Your task to perform on an android device: turn on notifications settings in the gmail app Image 0: 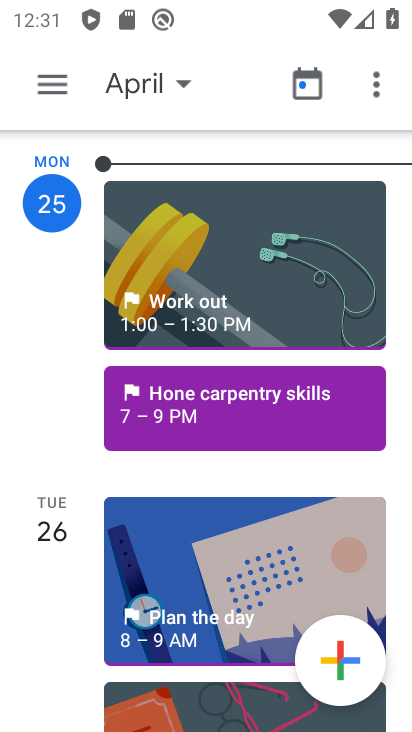
Step 0: press home button
Your task to perform on an android device: turn on notifications settings in the gmail app Image 1: 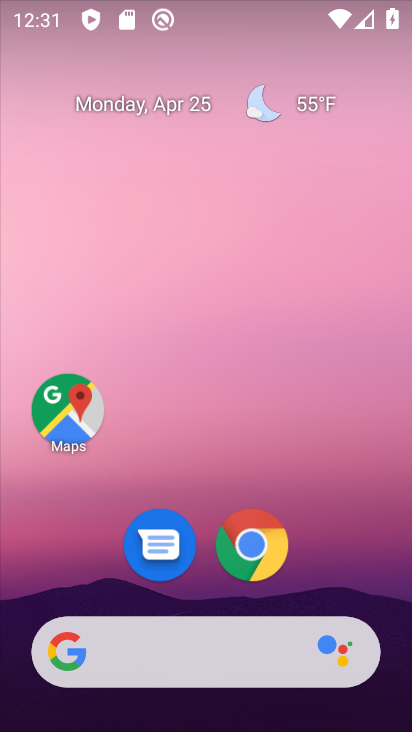
Step 1: drag from (311, 557) to (76, 100)
Your task to perform on an android device: turn on notifications settings in the gmail app Image 2: 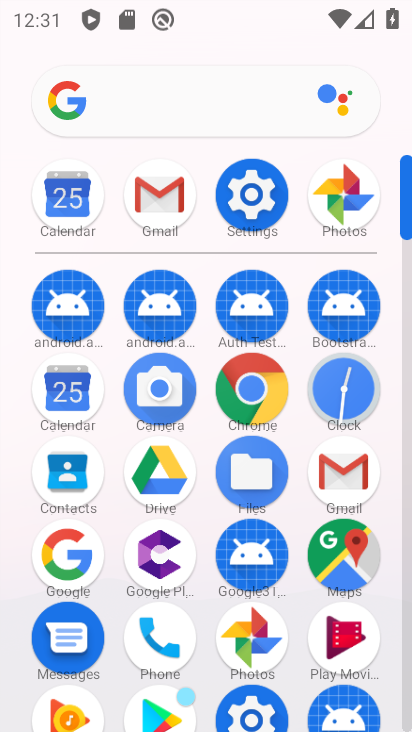
Step 2: click (349, 477)
Your task to perform on an android device: turn on notifications settings in the gmail app Image 3: 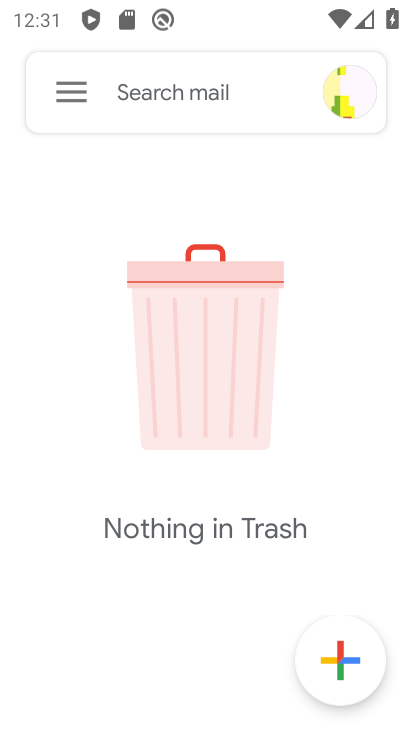
Step 3: click (73, 92)
Your task to perform on an android device: turn on notifications settings in the gmail app Image 4: 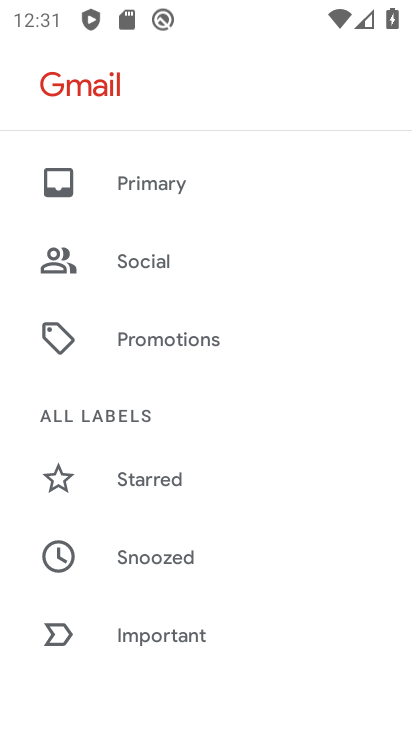
Step 4: drag from (212, 584) to (177, 150)
Your task to perform on an android device: turn on notifications settings in the gmail app Image 5: 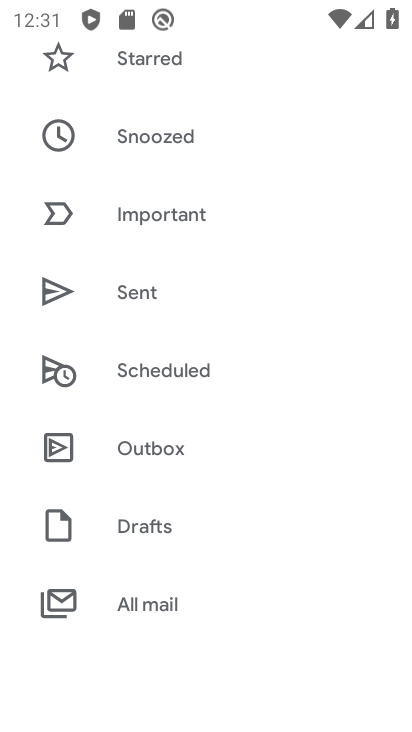
Step 5: drag from (152, 569) to (147, 141)
Your task to perform on an android device: turn on notifications settings in the gmail app Image 6: 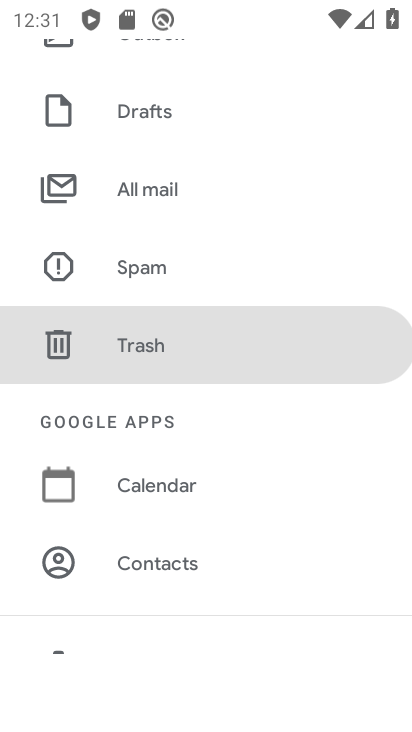
Step 6: drag from (131, 547) to (118, 186)
Your task to perform on an android device: turn on notifications settings in the gmail app Image 7: 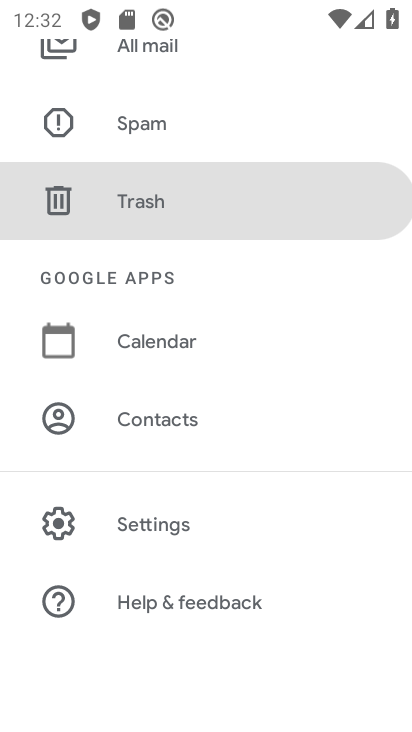
Step 7: click (71, 515)
Your task to perform on an android device: turn on notifications settings in the gmail app Image 8: 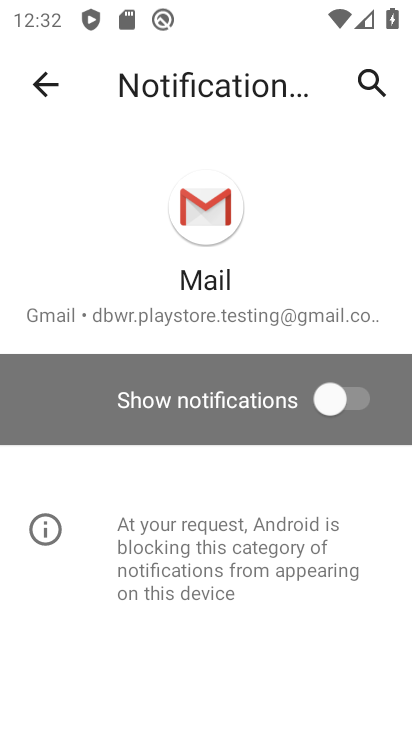
Step 8: click (336, 400)
Your task to perform on an android device: turn on notifications settings in the gmail app Image 9: 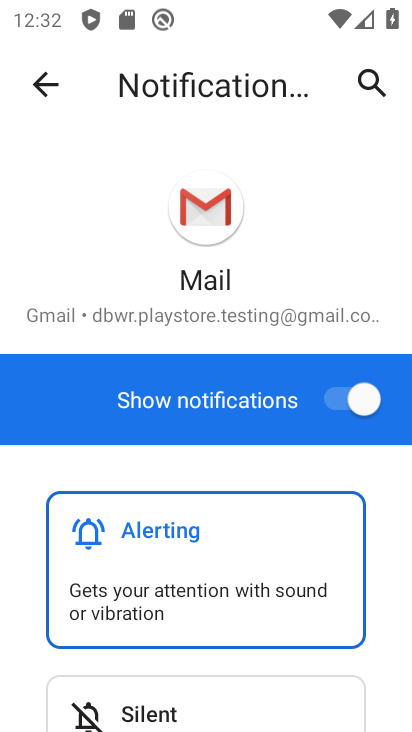
Step 9: task complete